Your task to perform on an android device: turn off notifications settings in the gmail app Image 0: 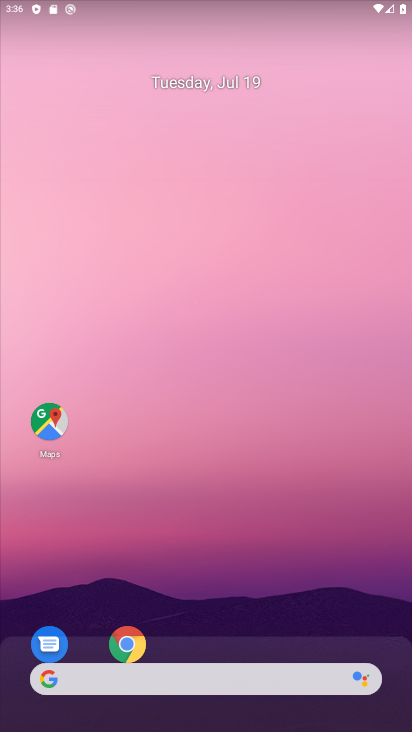
Step 0: drag from (209, 662) to (266, 204)
Your task to perform on an android device: turn off notifications settings in the gmail app Image 1: 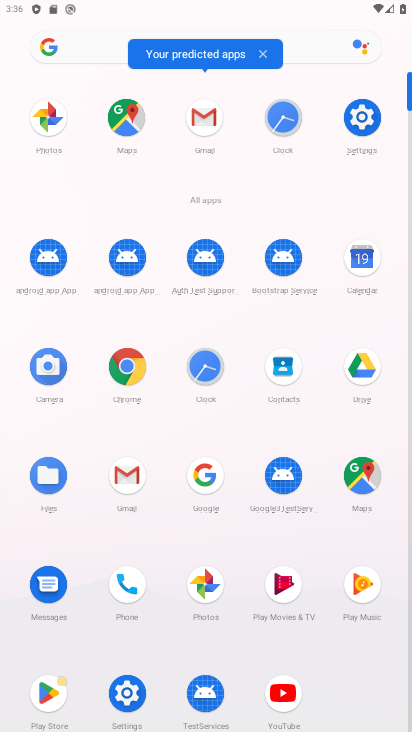
Step 1: click (126, 480)
Your task to perform on an android device: turn off notifications settings in the gmail app Image 2: 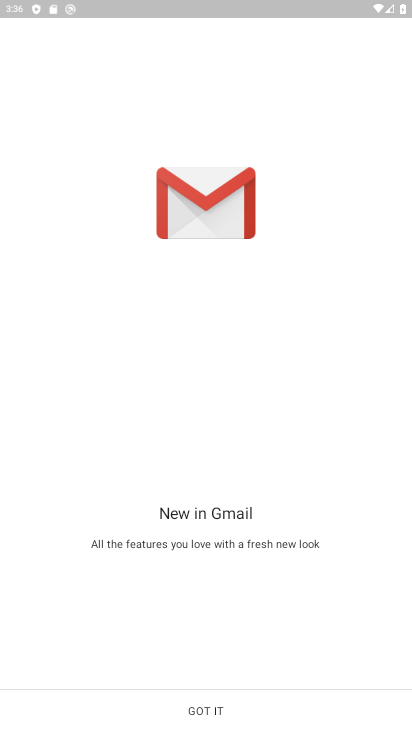
Step 2: click (188, 709)
Your task to perform on an android device: turn off notifications settings in the gmail app Image 3: 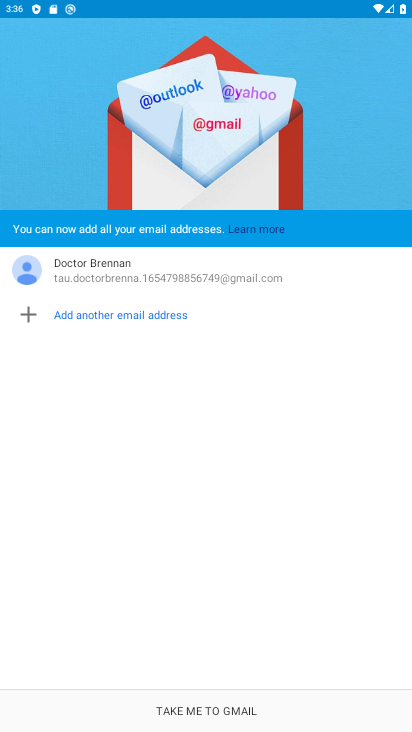
Step 3: click (212, 711)
Your task to perform on an android device: turn off notifications settings in the gmail app Image 4: 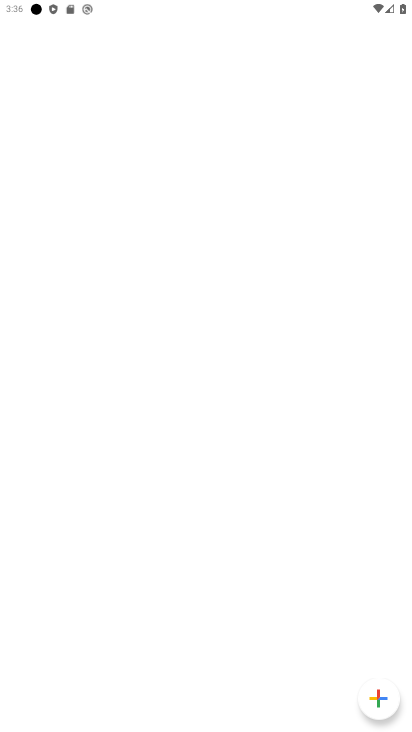
Step 4: click (211, 706)
Your task to perform on an android device: turn off notifications settings in the gmail app Image 5: 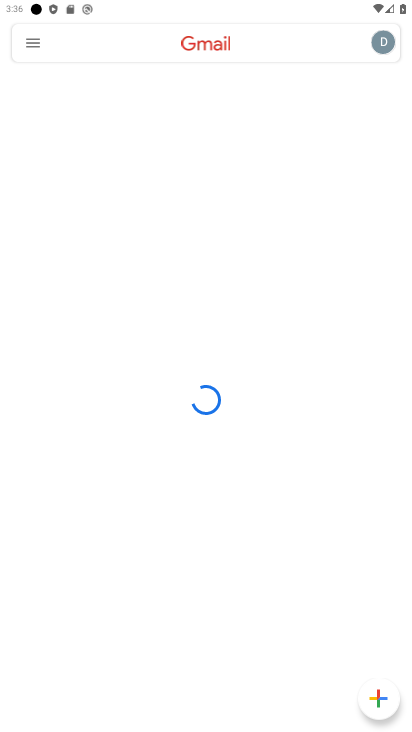
Step 5: click (37, 34)
Your task to perform on an android device: turn off notifications settings in the gmail app Image 6: 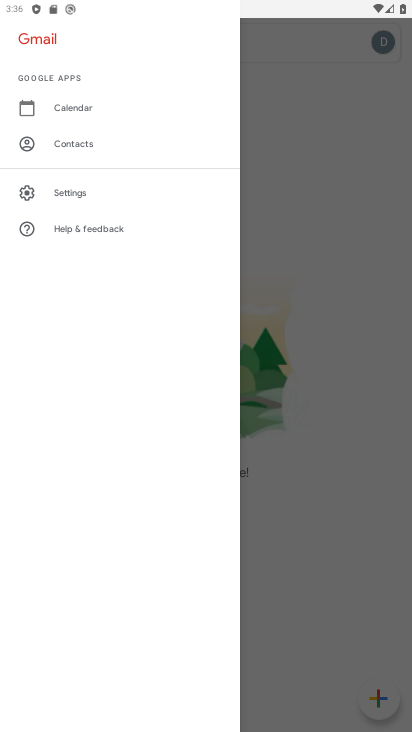
Step 6: click (98, 191)
Your task to perform on an android device: turn off notifications settings in the gmail app Image 7: 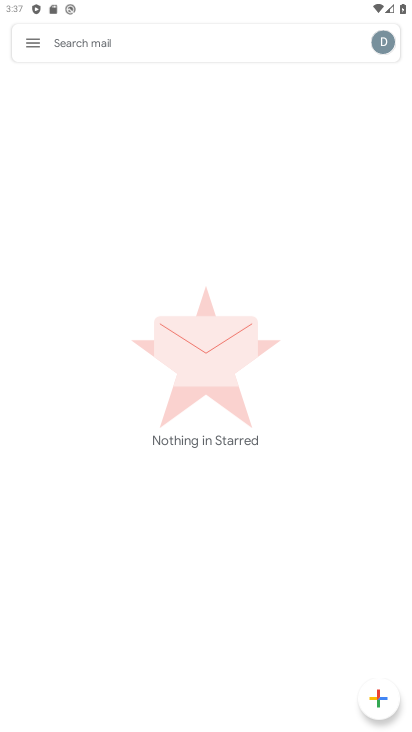
Step 7: click (41, 45)
Your task to perform on an android device: turn off notifications settings in the gmail app Image 8: 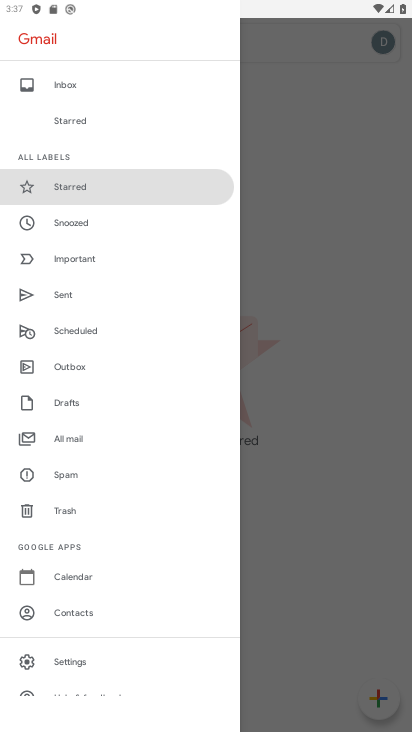
Step 8: drag from (129, 619) to (209, 333)
Your task to perform on an android device: turn off notifications settings in the gmail app Image 9: 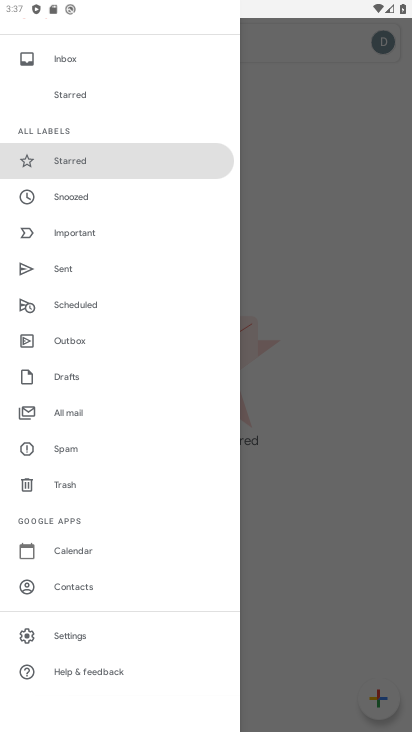
Step 9: click (83, 635)
Your task to perform on an android device: turn off notifications settings in the gmail app Image 10: 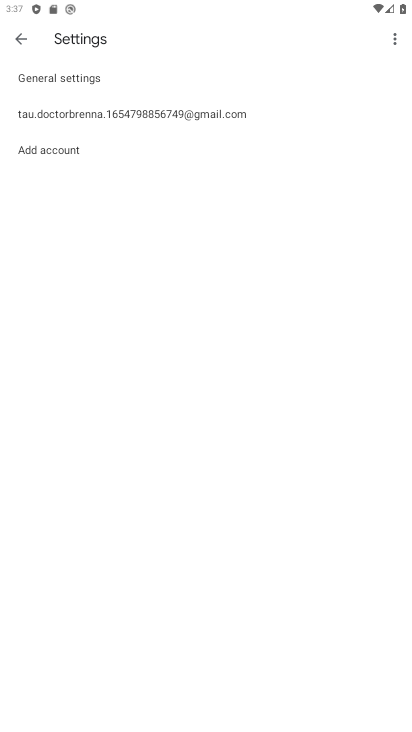
Step 10: click (253, 122)
Your task to perform on an android device: turn off notifications settings in the gmail app Image 11: 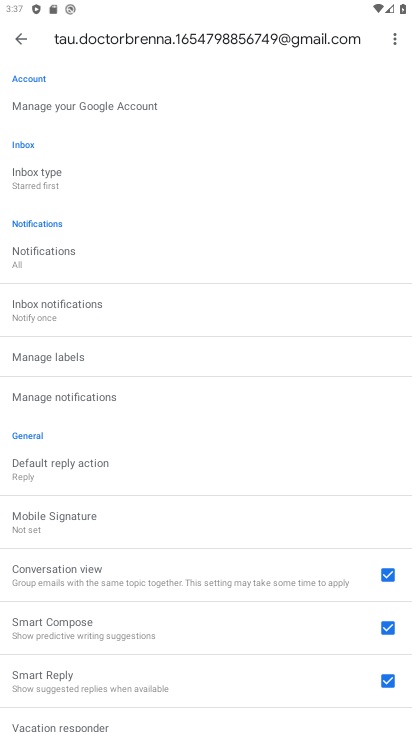
Step 11: click (129, 397)
Your task to perform on an android device: turn off notifications settings in the gmail app Image 12: 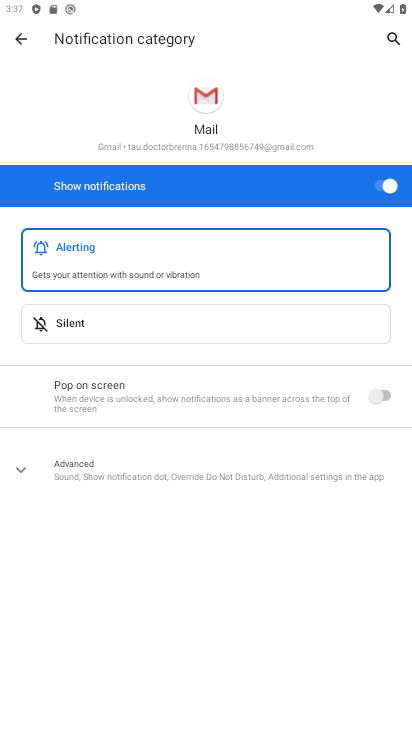
Step 12: click (365, 184)
Your task to perform on an android device: turn off notifications settings in the gmail app Image 13: 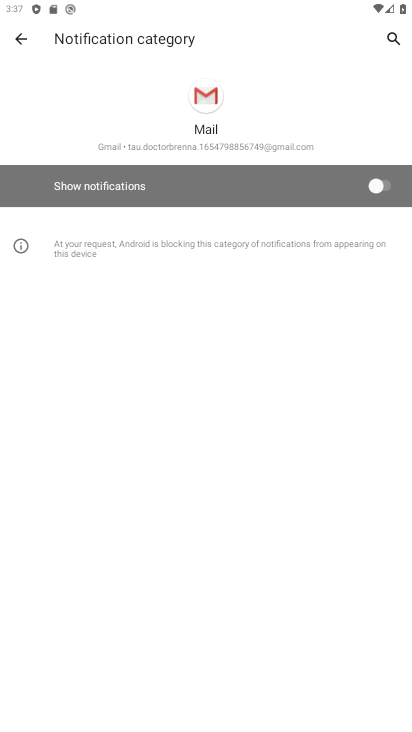
Step 13: task complete